Your task to perform on an android device: Is it going to rain today? Image 0: 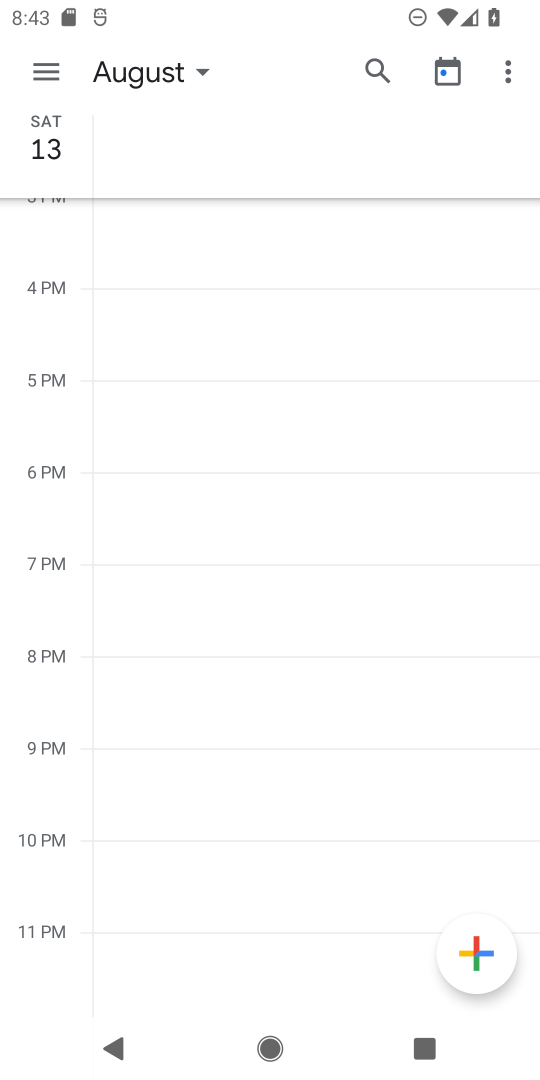
Step 0: press home button
Your task to perform on an android device: Is it going to rain today? Image 1: 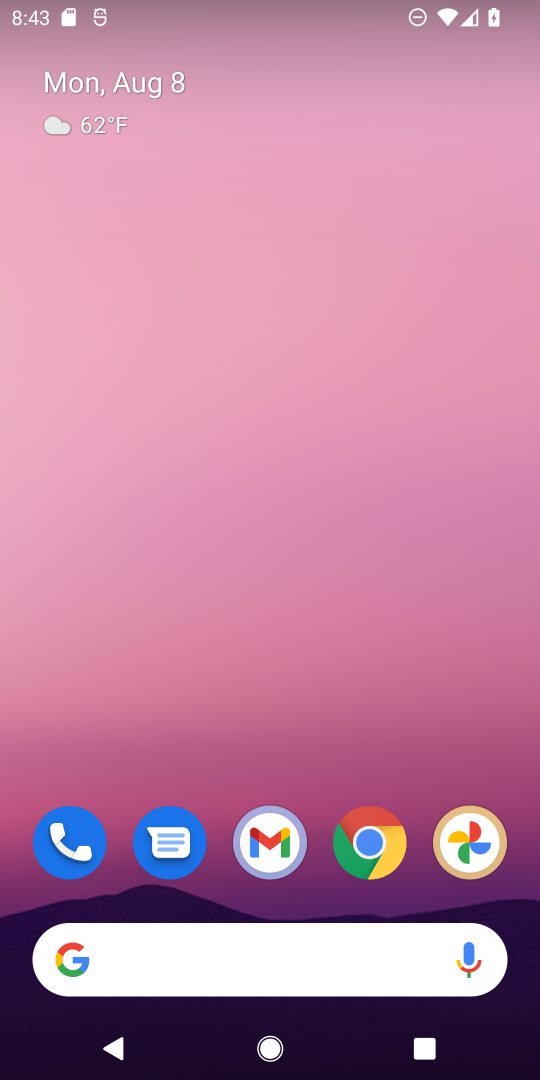
Step 1: click (244, 945)
Your task to perform on an android device: Is it going to rain today? Image 2: 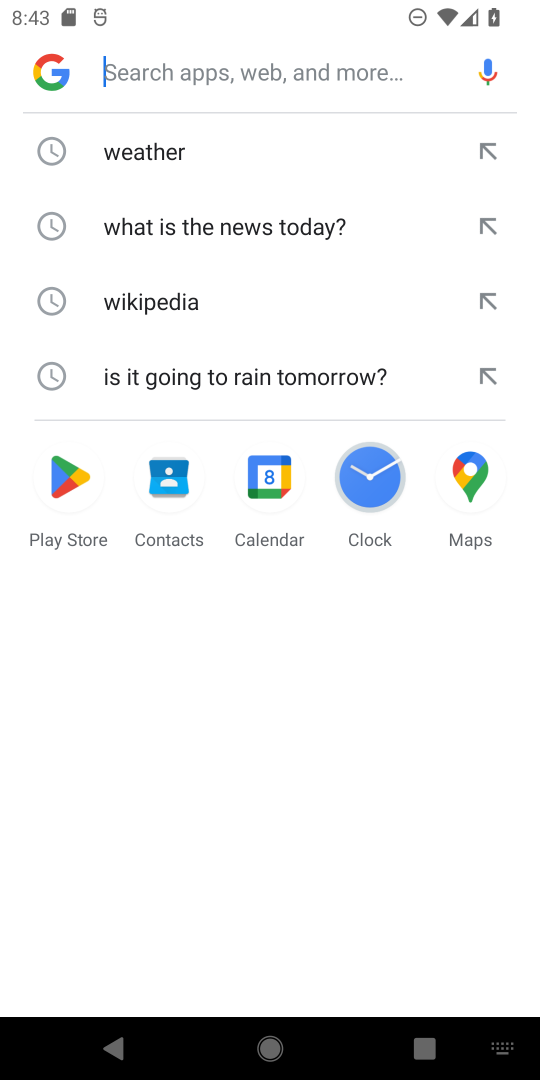
Step 2: click (200, 141)
Your task to perform on an android device: Is it going to rain today? Image 3: 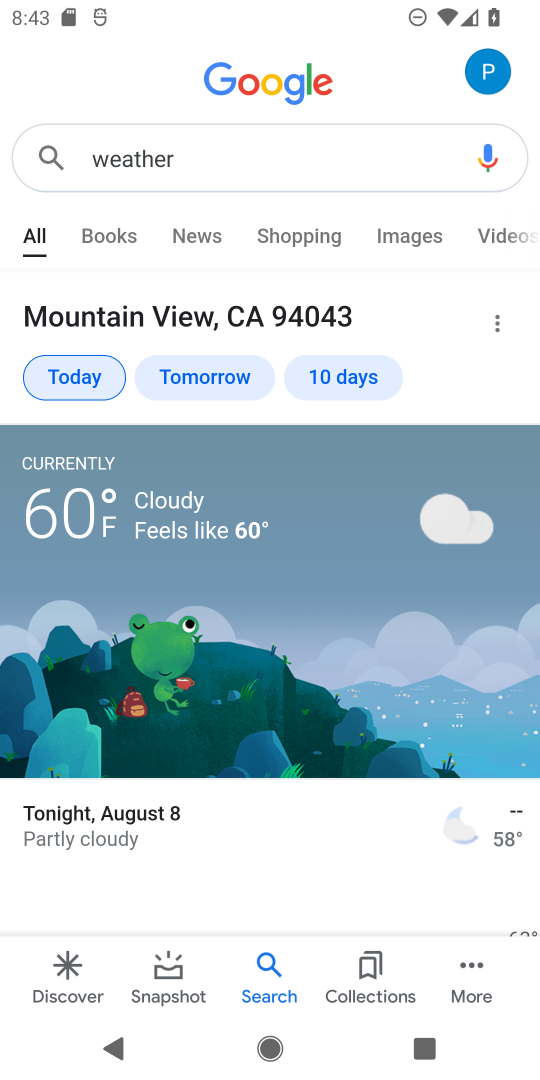
Step 3: click (92, 377)
Your task to perform on an android device: Is it going to rain today? Image 4: 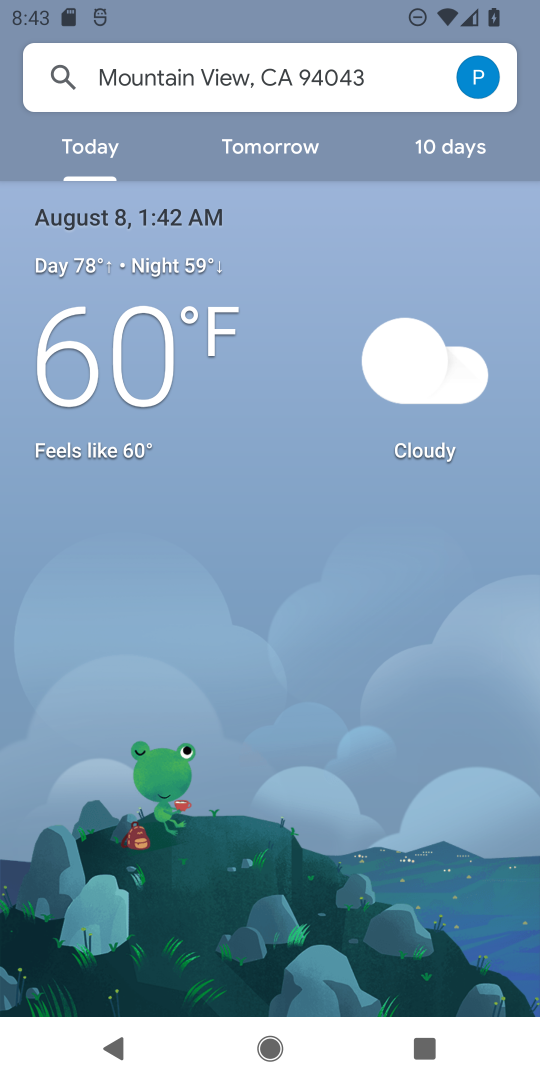
Step 4: task complete